Your task to perform on an android device: Open Android settings Image 0: 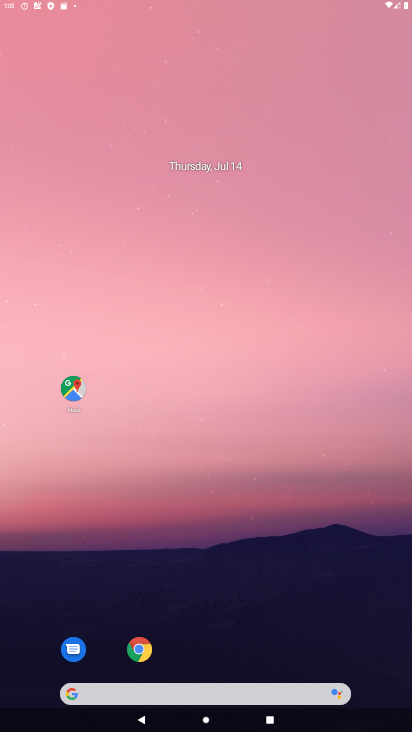
Step 0: click (266, 0)
Your task to perform on an android device: Open Android settings Image 1: 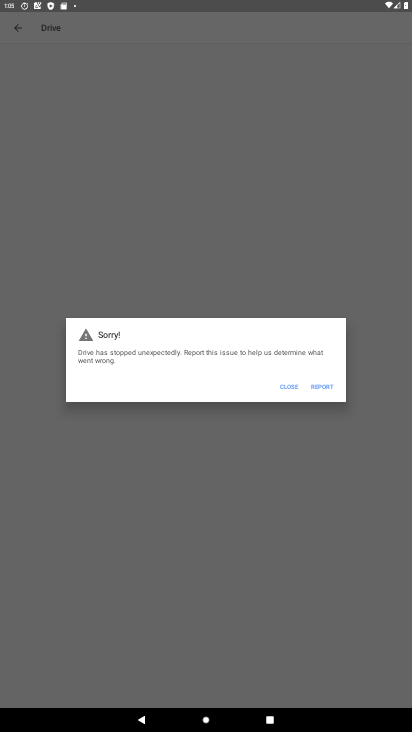
Step 1: click (288, 387)
Your task to perform on an android device: Open Android settings Image 2: 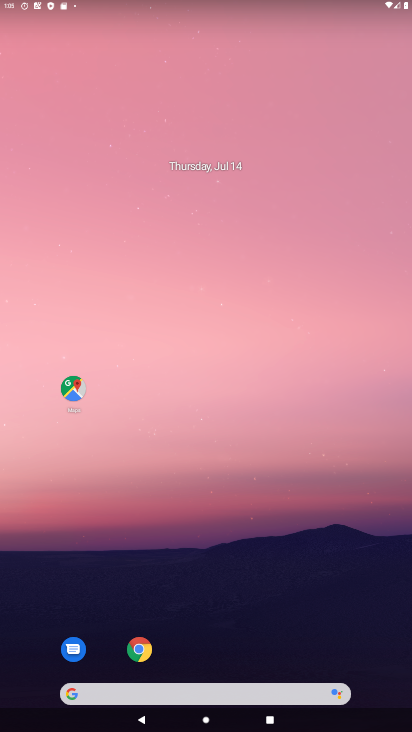
Step 2: drag from (204, 638) to (311, 84)
Your task to perform on an android device: Open Android settings Image 3: 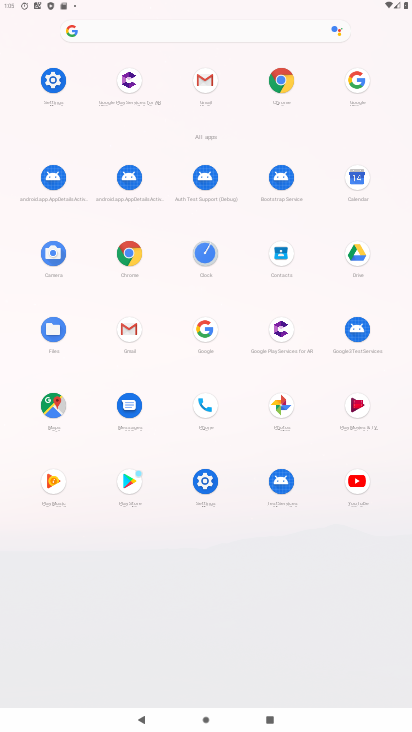
Step 3: click (54, 87)
Your task to perform on an android device: Open Android settings Image 4: 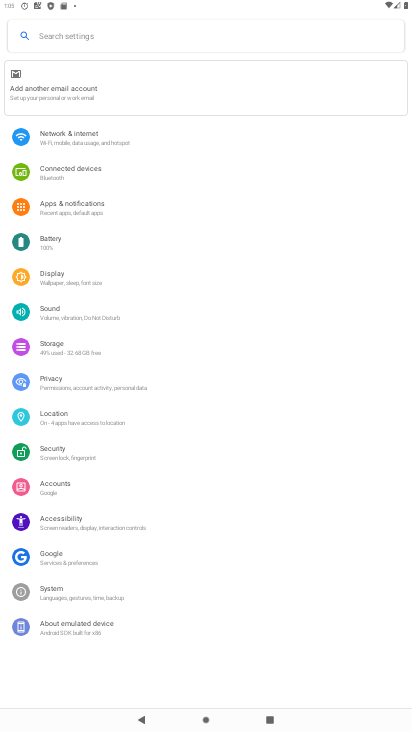
Step 4: task complete